Your task to perform on an android device: Do I have any events this weekend? Image 0: 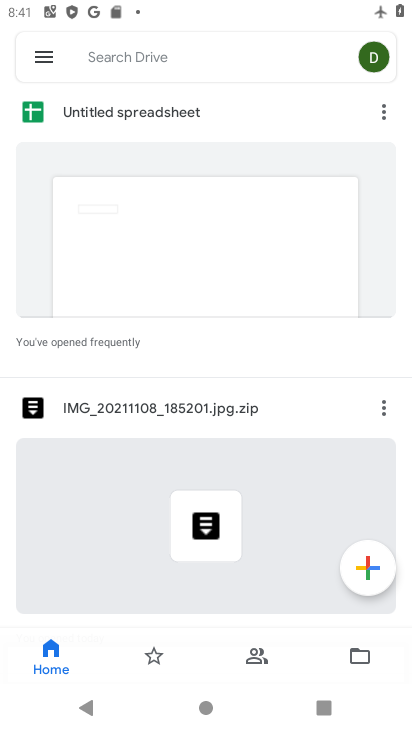
Step 0: press home button
Your task to perform on an android device: Do I have any events this weekend? Image 1: 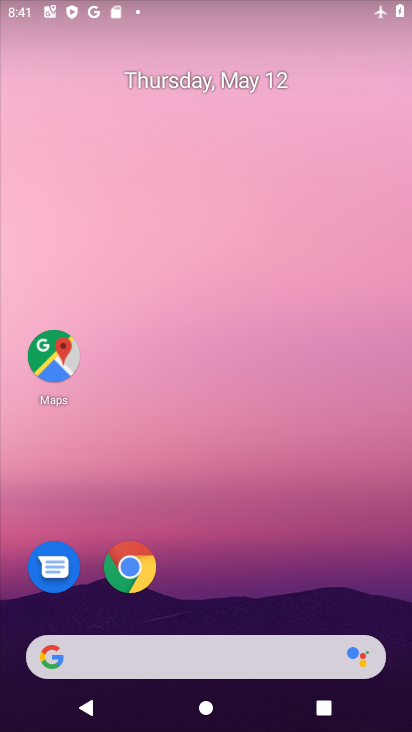
Step 1: drag from (332, 514) to (355, 211)
Your task to perform on an android device: Do I have any events this weekend? Image 2: 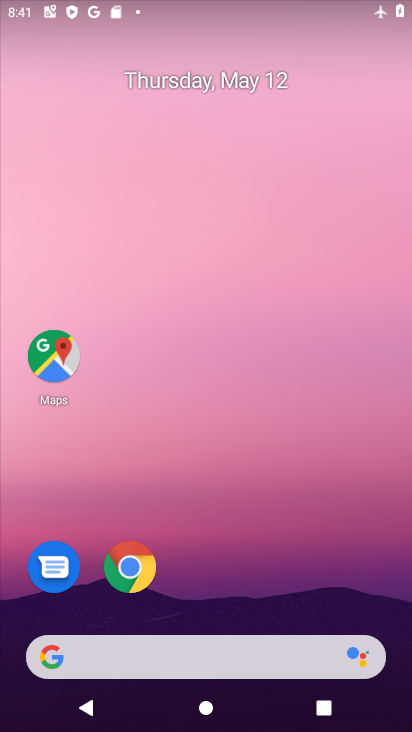
Step 2: drag from (180, 639) to (306, 145)
Your task to perform on an android device: Do I have any events this weekend? Image 3: 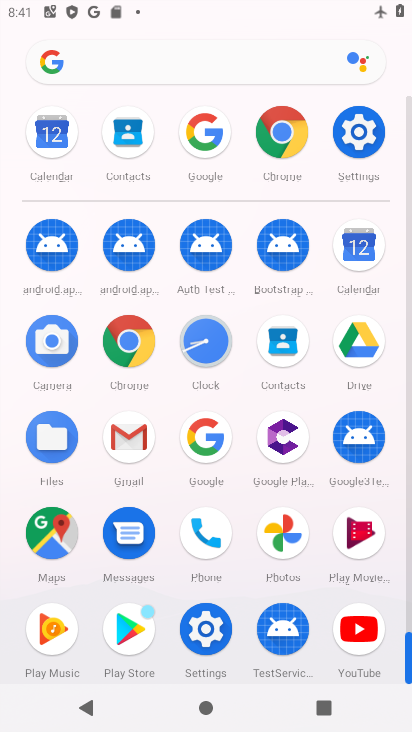
Step 3: click (356, 275)
Your task to perform on an android device: Do I have any events this weekend? Image 4: 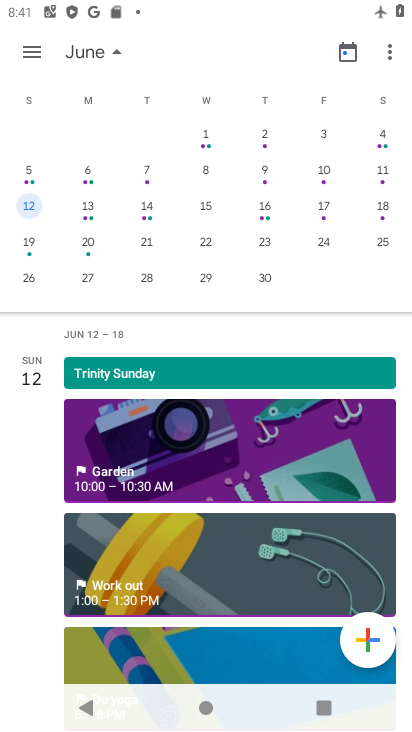
Step 4: drag from (146, 214) to (411, 121)
Your task to perform on an android device: Do I have any events this weekend? Image 5: 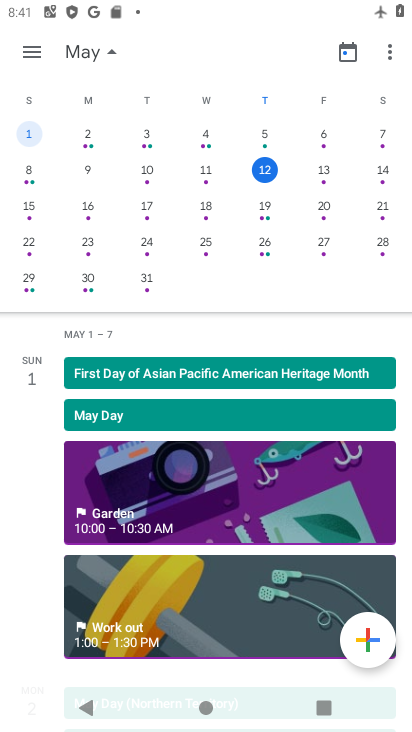
Step 5: click (327, 169)
Your task to perform on an android device: Do I have any events this weekend? Image 6: 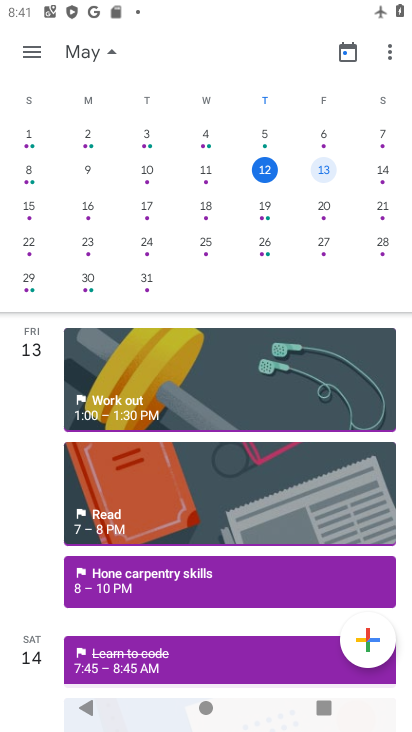
Step 6: click (388, 170)
Your task to perform on an android device: Do I have any events this weekend? Image 7: 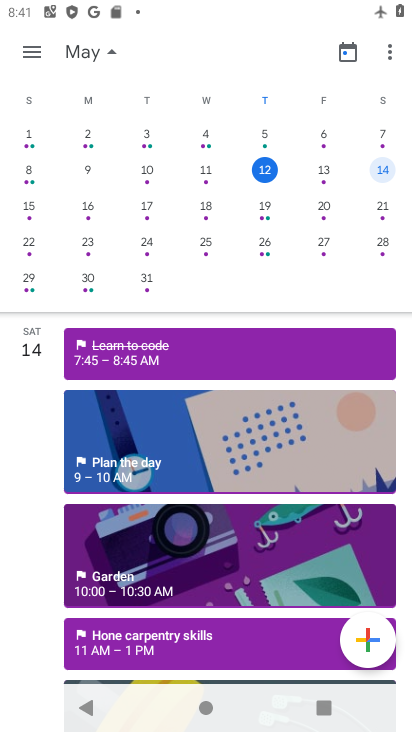
Step 7: task complete